Your task to perform on an android device: Go to notification settings Image 0: 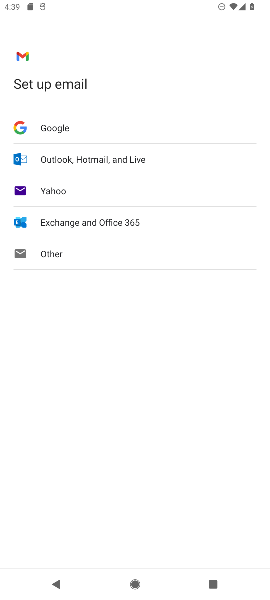
Step 0: press home button
Your task to perform on an android device: Go to notification settings Image 1: 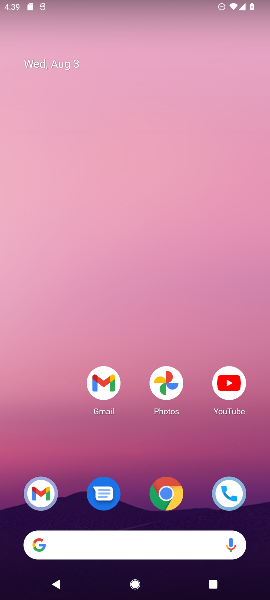
Step 1: drag from (69, 451) to (72, 86)
Your task to perform on an android device: Go to notification settings Image 2: 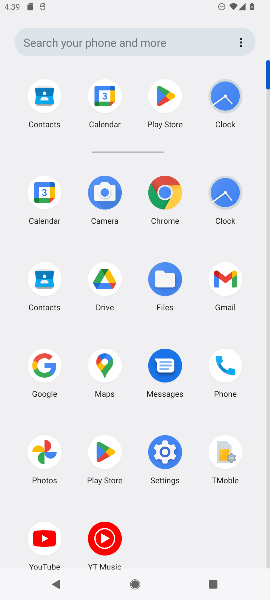
Step 2: click (161, 456)
Your task to perform on an android device: Go to notification settings Image 3: 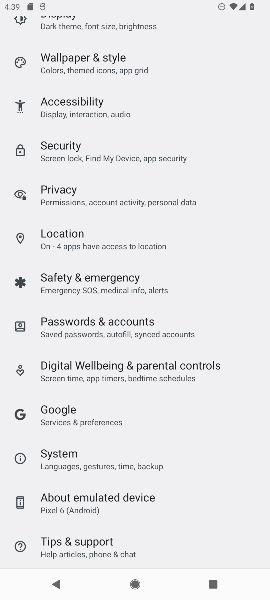
Step 3: drag from (227, 488) to (232, 282)
Your task to perform on an android device: Go to notification settings Image 4: 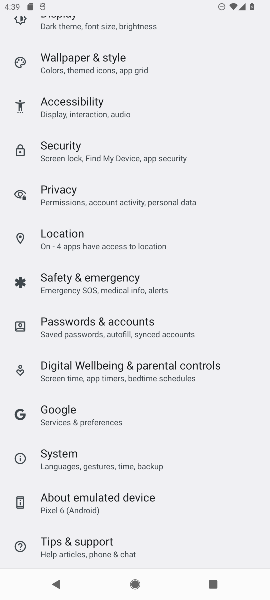
Step 4: drag from (238, 211) to (228, 382)
Your task to perform on an android device: Go to notification settings Image 5: 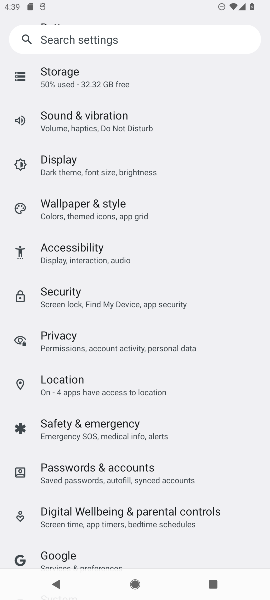
Step 5: drag from (215, 209) to (223, 380)
Your task to perform on an android device: Go to notification settings Image 6: 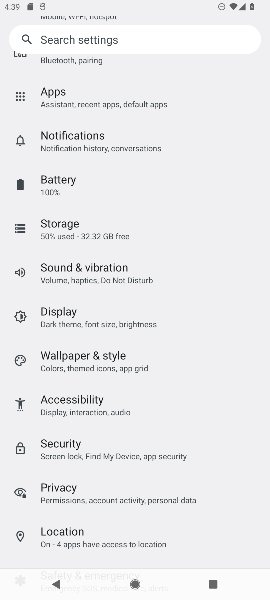
Step 6: drag from (210, 183) to (215, 310)
Your task to perform on an android device: Go to notification settings Image 7: 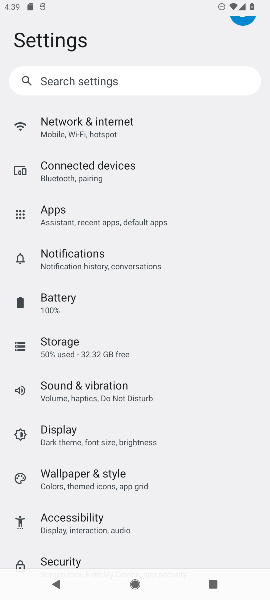
Step 7: drag from (207, 176) to (213, 323)
Your task to perform on an android device: Go to notification settings Image 8: 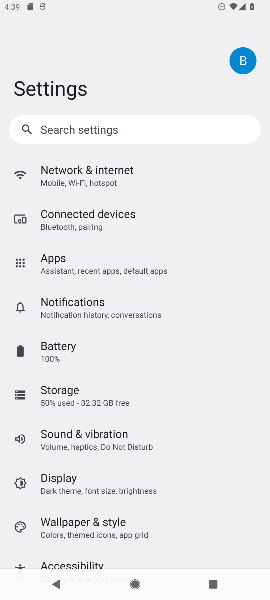
Step 8: drag from (225, 415) to (209, 301)
Your task to perform on an android device: Go to notification settings Image 9: 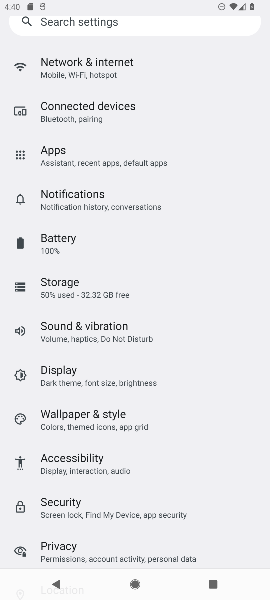
Step 9: drag from (222, 414) to (220, 301)
Your task to perform on an android device: Go to notification settings Image 10: 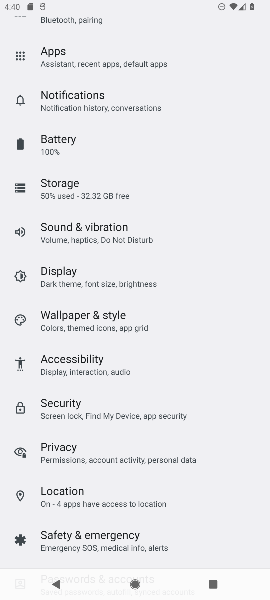
Step 10: drag from (228, 480) to (220, 366)
Your task to perform on an android device: Go to notification settings Image 11: 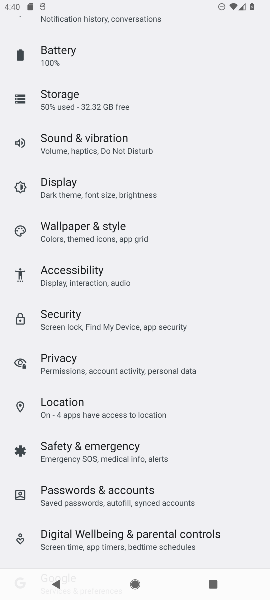
Step 11: drag from (226, 210) to (231, 363)
Your task to perform on an android device: Go to notification settings Image 12: 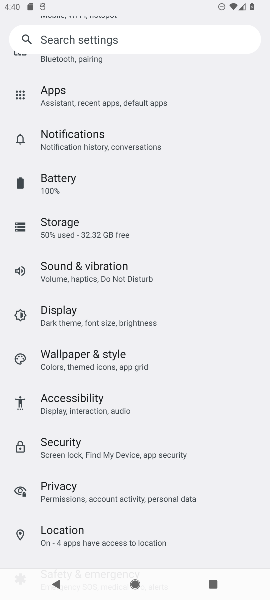
Step 12: drag from (216, 170) to (225, 328)
Your task to perform on an android device: Go to notification settings Image 13: 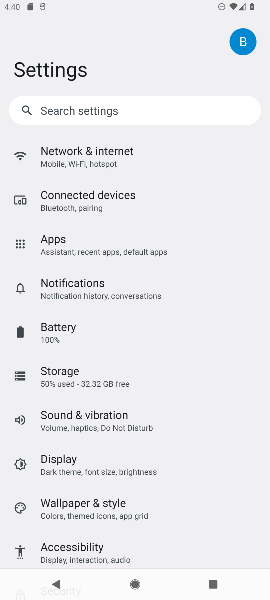
Step 13: drag from (217, 189) to (217, 325)
Your task to perform on an android device: Go to notification settings Image 14: 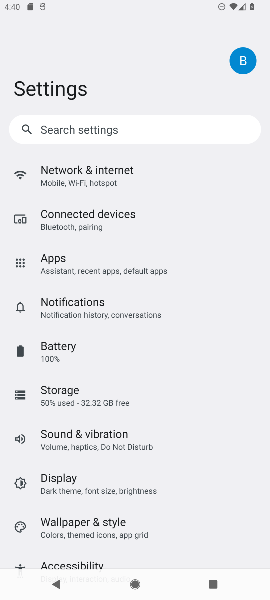
Step 14: click (111, 304)
Your task to perform on an android device: Go to notification settings Image 15: 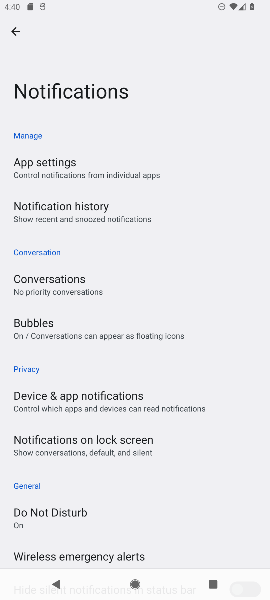
Step 15: task complete